Your task to perform on an android device: change the clock style Image 0: 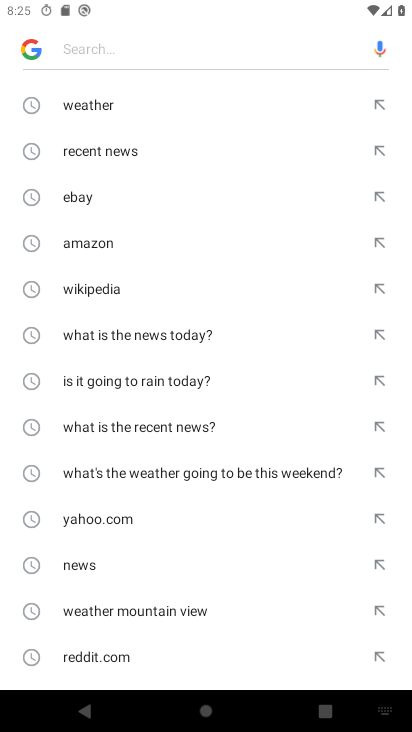
Step 0: press home button
Your task to perform on an android device: change the clock style Image 1: 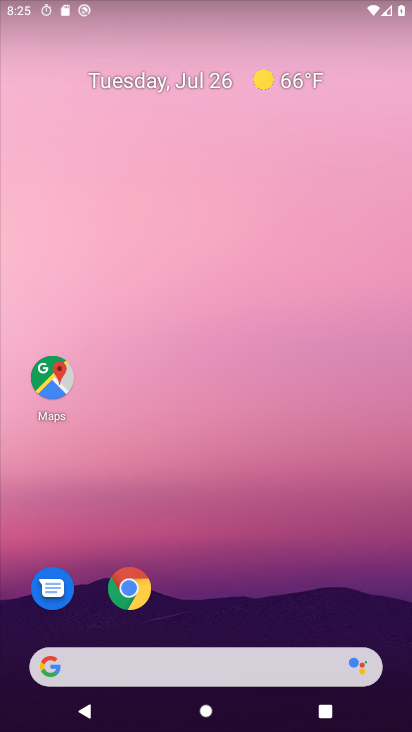
Step 1: drag from (241, 726) to (196, 60)
Your task to perform on an android device: change the clock style Image 2: 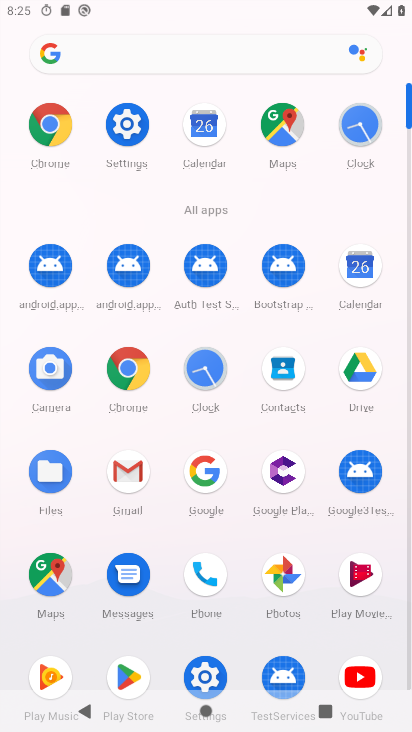
Step 2: click (206, 371)
Your task to perform on an android device: change the clock style Image 3: 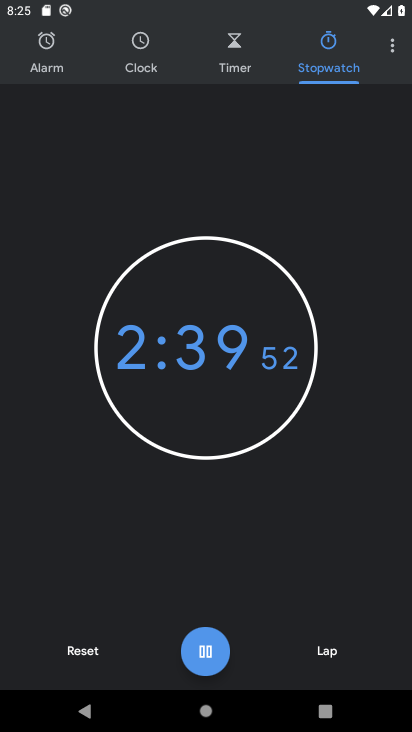
Step 3: click (393, 46)
Your task to perform on an android device: change the clock style Image 4: 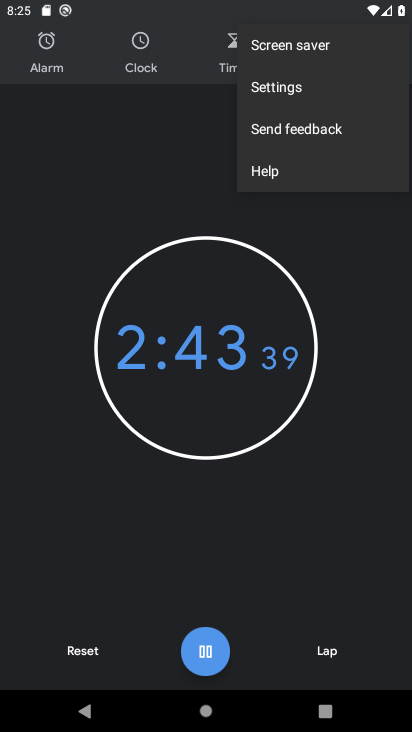
Step 4: click (268, 86)
Your task to perform on an android device: change the clock style Image 5: 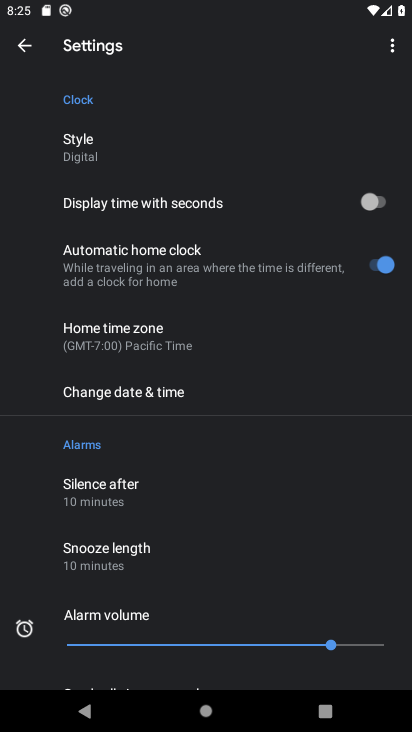
Step 5: click (65, 151)
Your task to perform on an android device: change the clock style Image 6: 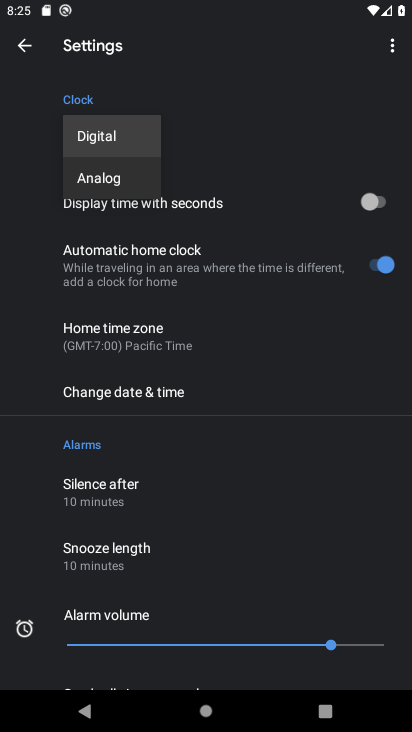
Step 6: click (94, 183)
Your task to perform on an android device: change the clock style Image 7: 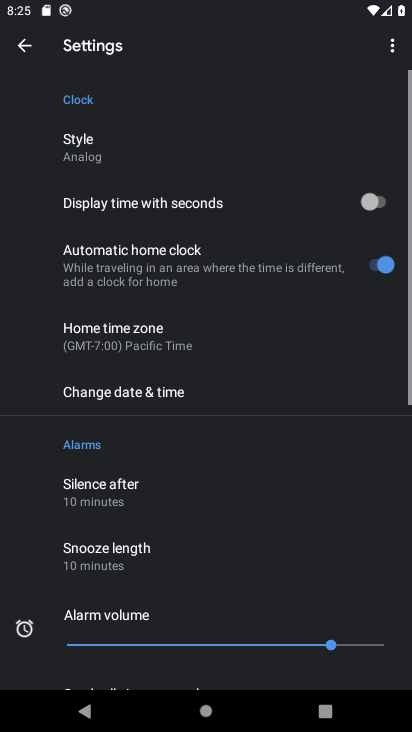
Step 7: task complete